Your task to perform on an android device: set default search engine in the chrome app Image 0: 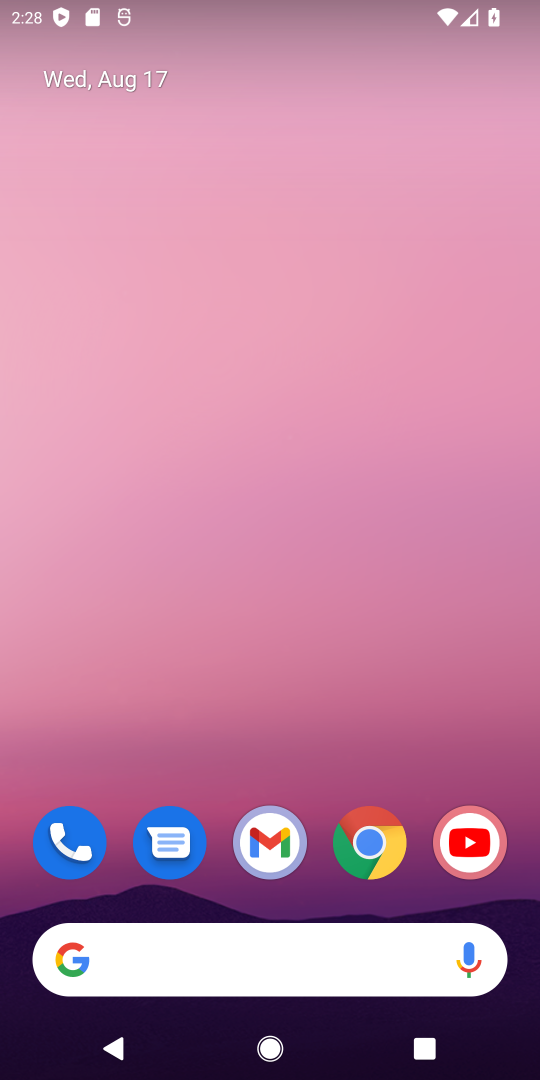
Step 0: drag from (426, 894) to (239, 55)
Your task to perform on an android device: set default search engine in the chrome app Image 1: 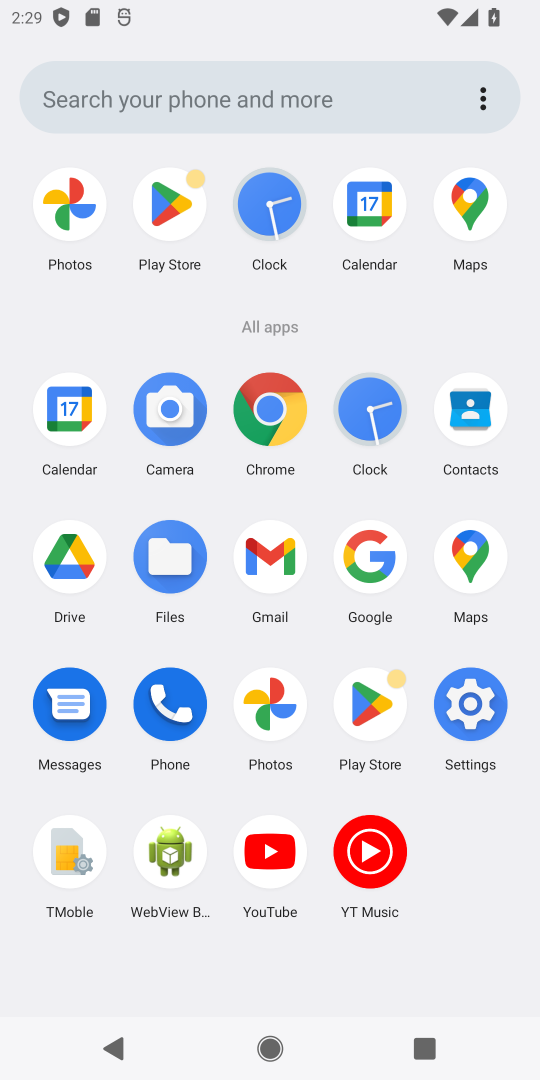
Step 1: click (298, 361)
Your task to perform on an android device: set default search engine in the chrome app Image 2: 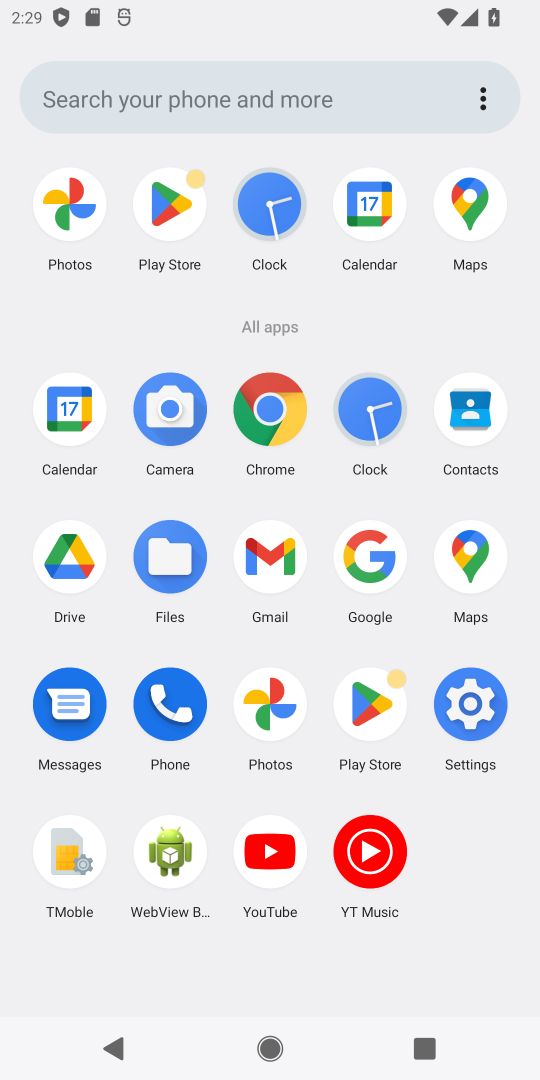
Step 2: click (297, 389)
Your task to perform on an android device: set default search engine in the chrome app Image 3: 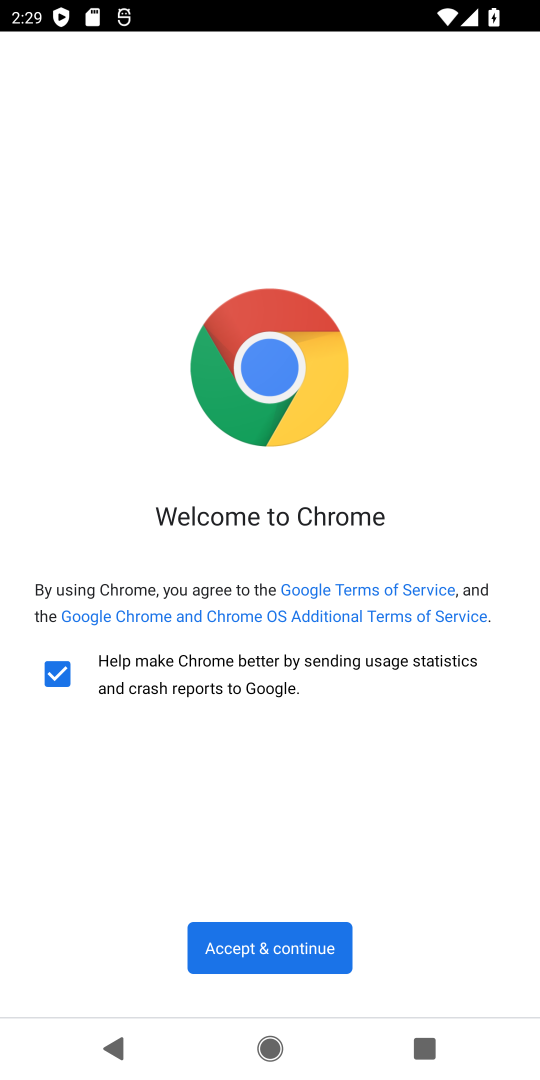
Step 3: click (266, 963)
Your task to perform on an android device: set default search engine in the chrome app Image 4: 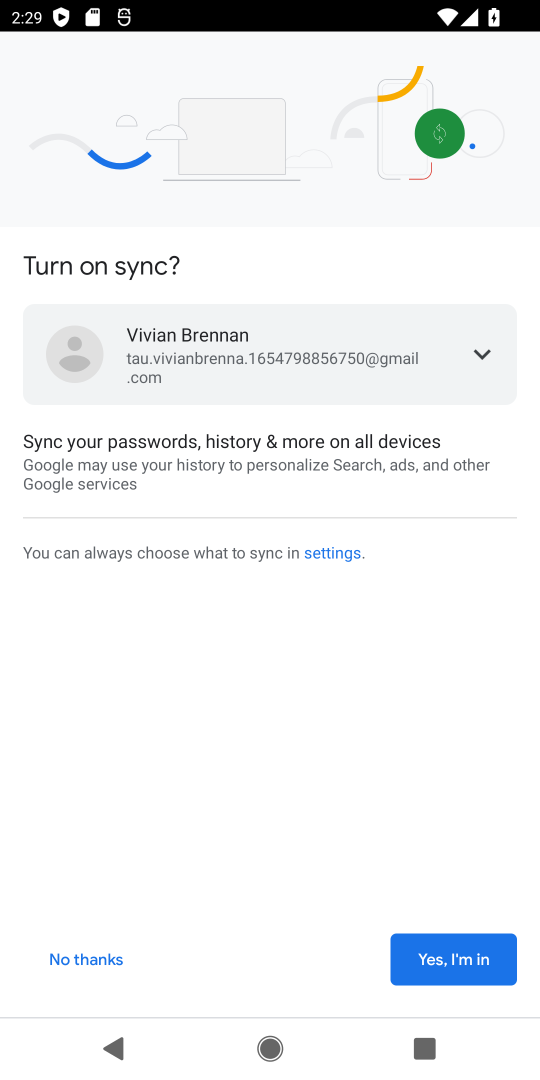
Step 4: click (459, 964)
Your task to perform on an android device: set default search engine in the chrome app Image 5: 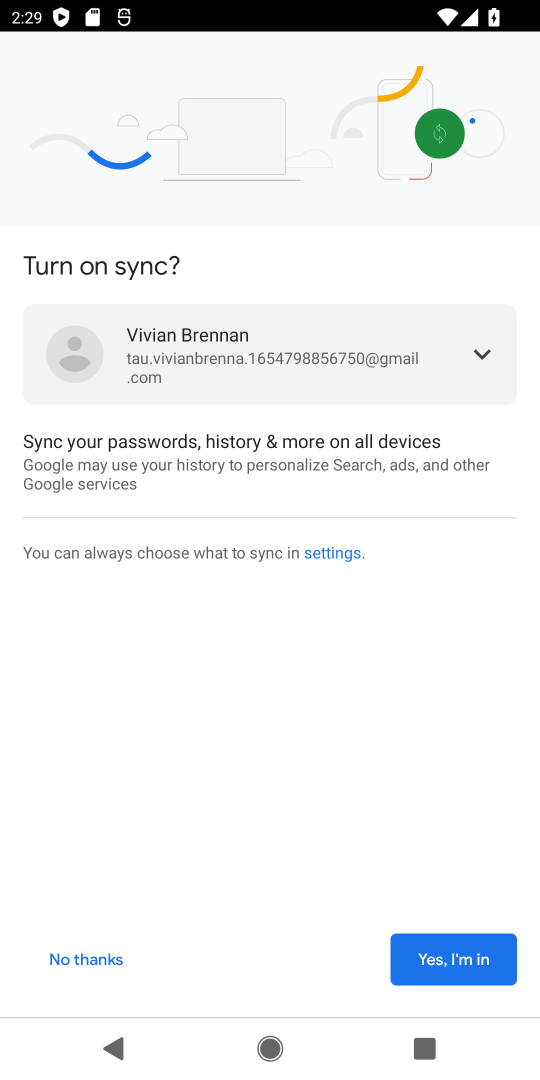
Step 5: click (459, 964)
Your task to perform on an android device: set default search engine in the chrome app Image 6: 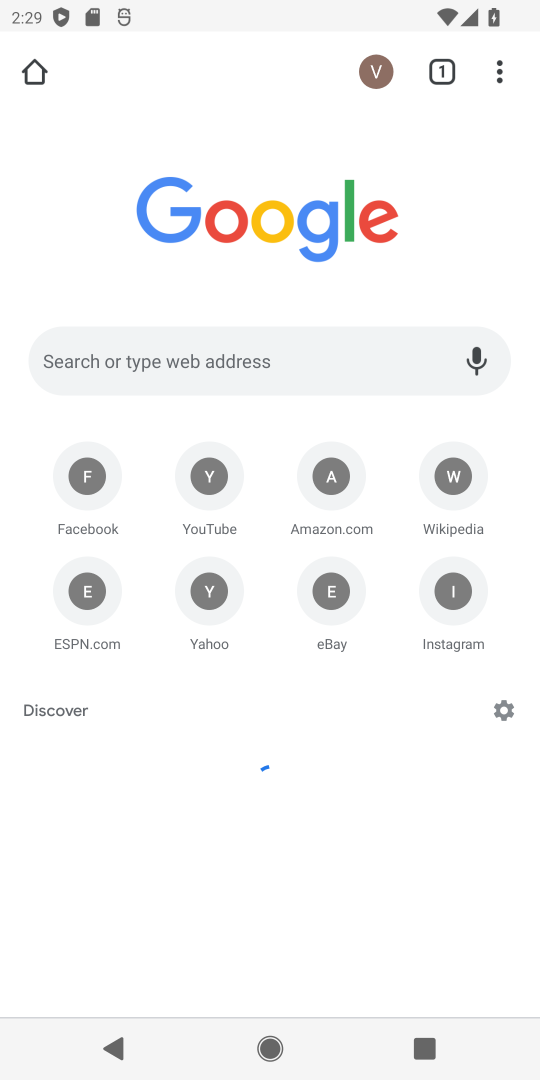
Step 6: click (459, 964)
Your task to perform on an android device: set default search engine in the chrome app Image 7: 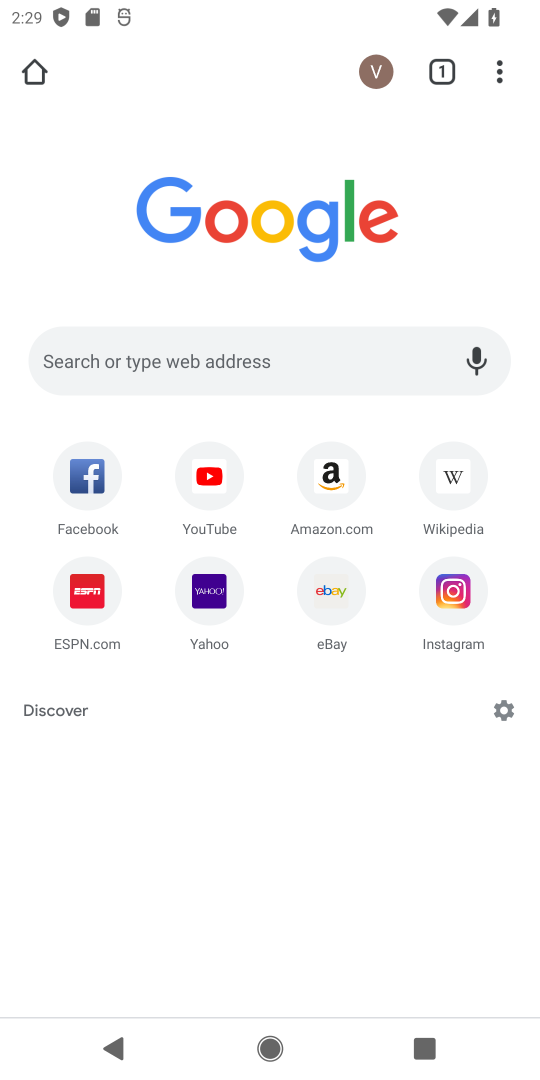
Step 7: click (489, 68)
Your task to perform on an android device: set default search engine in the chrome app Image 8: 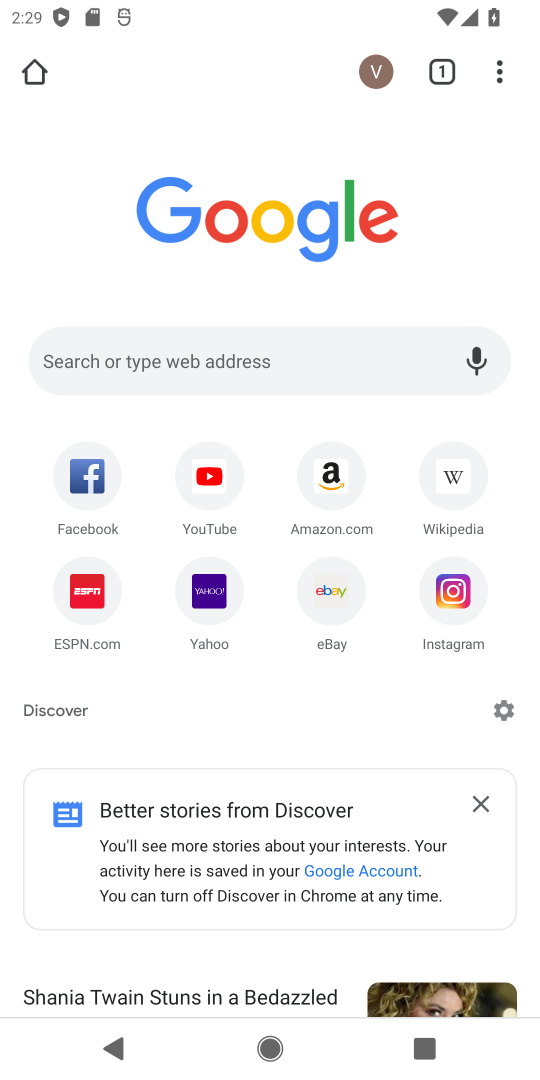
Step 8: click (489, 68)
Your task to perform on an android device: set default search engine in the chrome app Image 9: 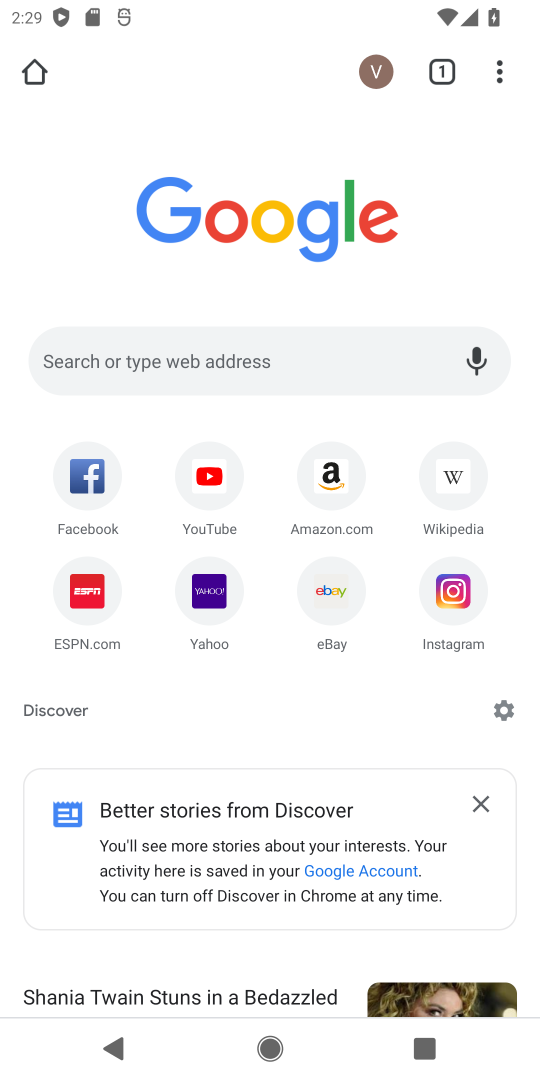
Step 9: click (489, 68)
Your task to perform on an android device: set default search engine in the chrome app Image 10: 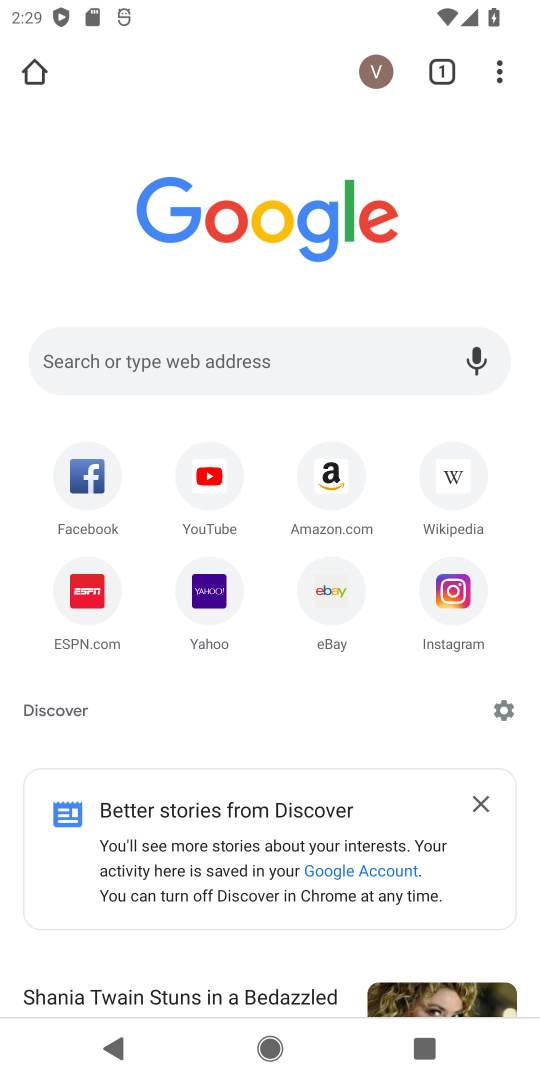
Step 10: task complete